Your task to perform on an android device: turn off data saver in the chrome app Image 0: 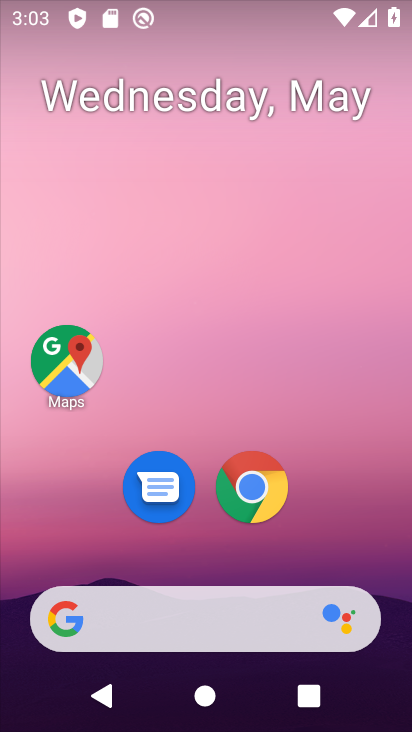
Step 0: drag from (336, 569) to (268, 38)
Your task to perform on an android device: turn off data saver in the chrome app Image 1: 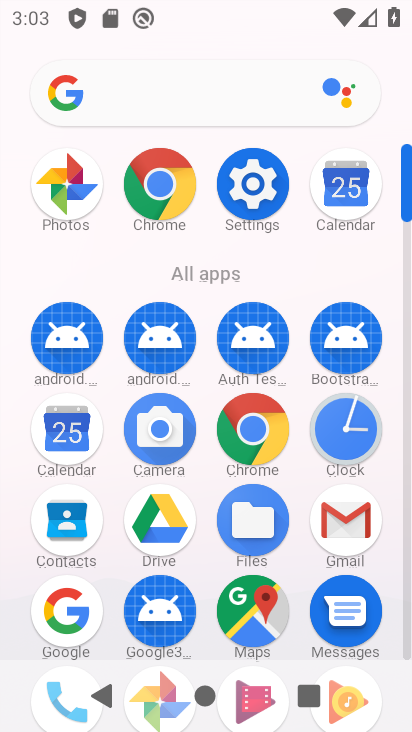
Step 1: drag from (9, 584) to (14, 322)
Your task to perform on an android device: turn off data saver in the chrome app Image 2: 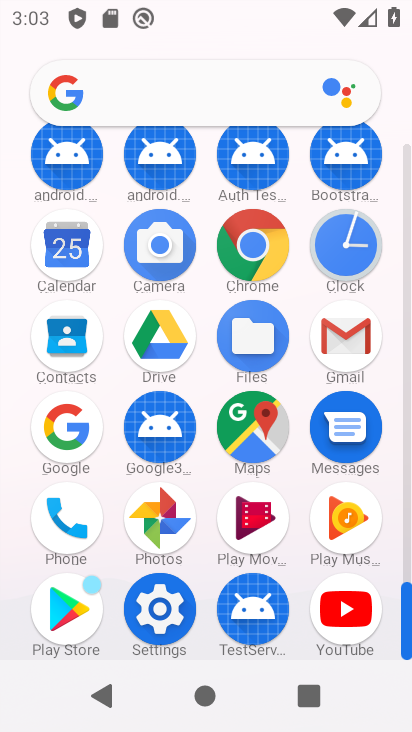
Step 2: click (250, 240)
Your task to perform on an android device: turn off data saver in the chrome app Image 3: 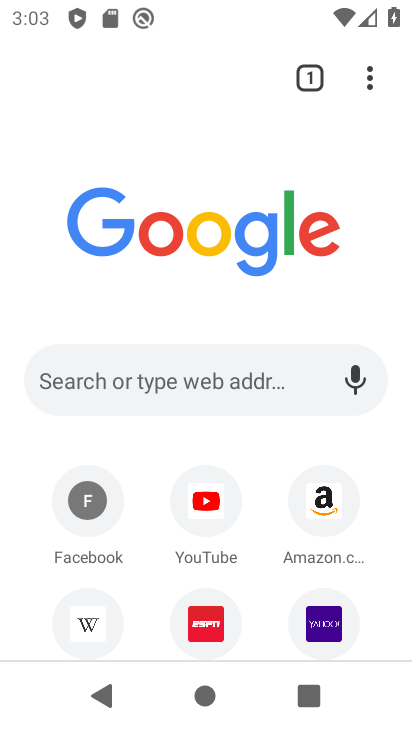
Step 3: drag from (370, 75) to (106, 530)
Your task to perform on an android device: turn off data saver in the chrome app Image 4: 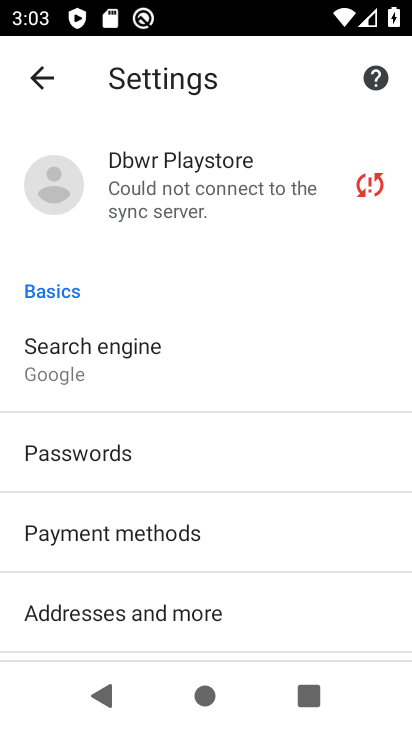
Step 4: drag from (250, 544) to (244, 223)
Your task to perform on an android device: turn off data saver in the chrome app Image 5: 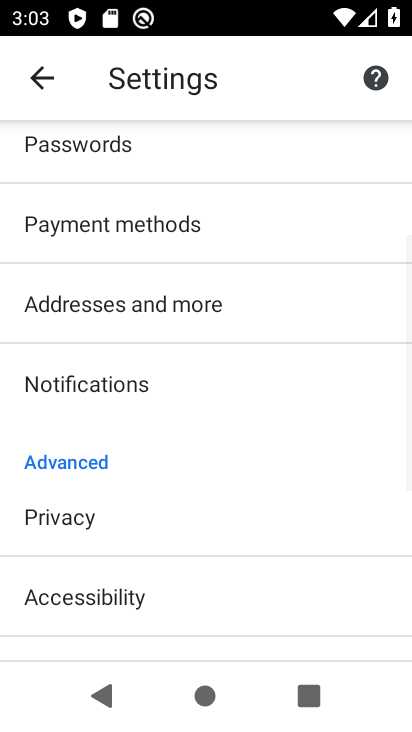
Step 5: drag from (235, 577) to (243, 181)
Your task to perform on an android device: turn off data saver in the chrome app Image 6: 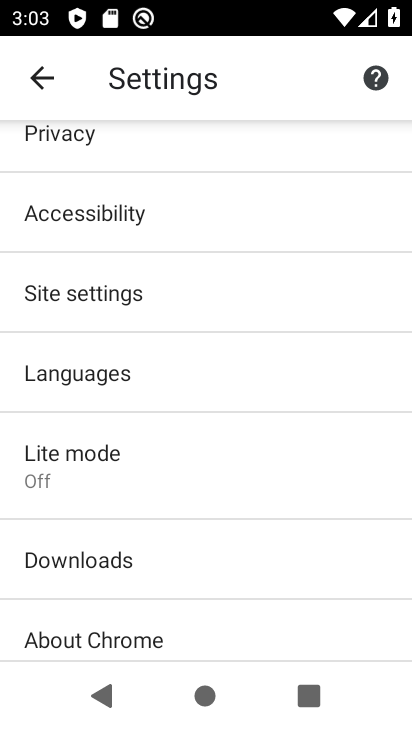
Step 6: drag from (189, 573) to (185, 200)
Your task to perform on an android device: turn off data saver in the chrome app Image 7: 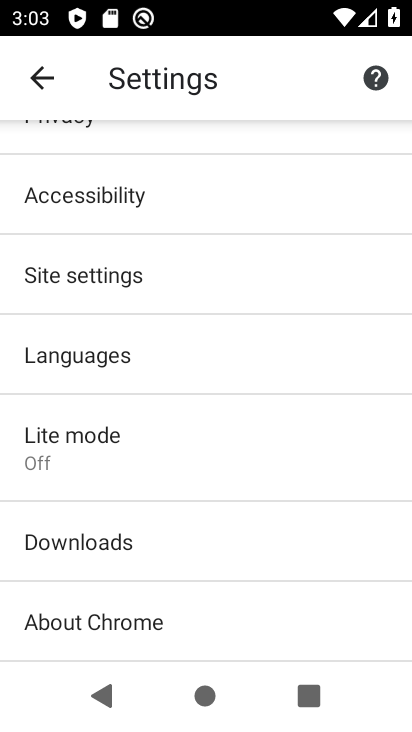
Step 7: click (105, 449)
Your task to perform on an android device: turn off data saver in the chrome app Image 8: 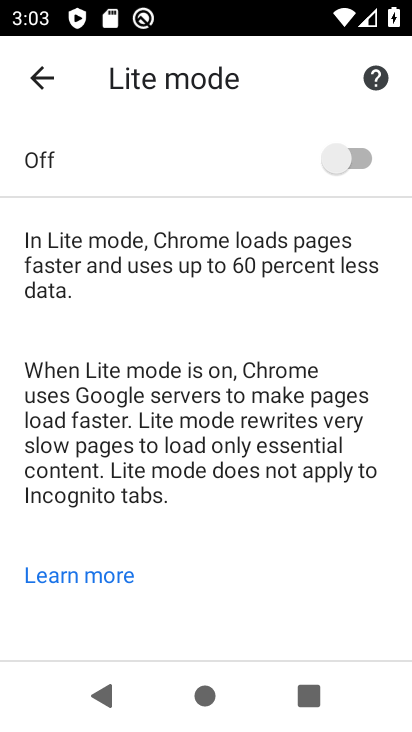
Step 8: task complete